Your task to perform on an android device: When is my next appointment? Image 0: 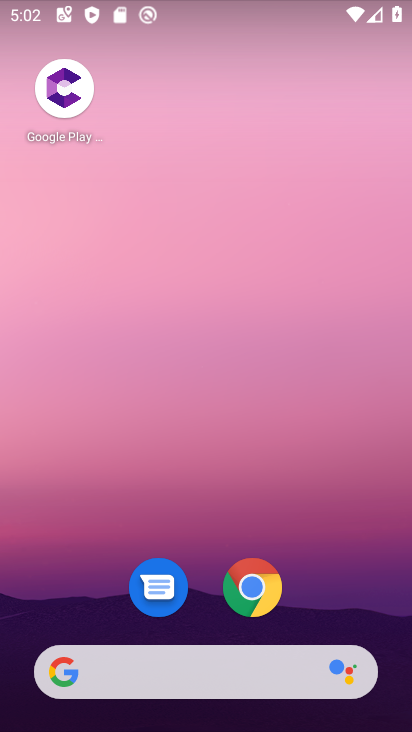
Step 0: drag from (336, 555) to (287, 193)
Your task to perform on an android device: When is my next appointment? Image 1: 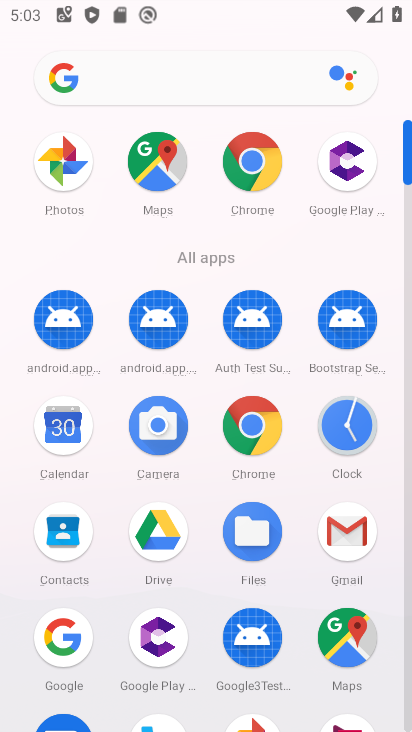
Step 1: click (66, 429)
Your task to perform on an android device: When is my next appointment? Image 2: 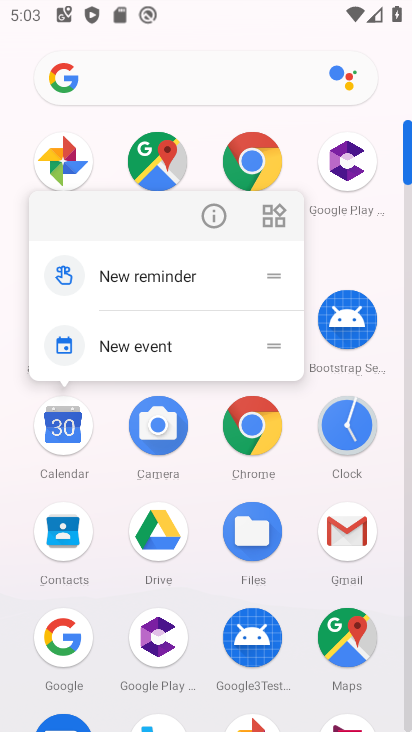
Step 2: click (66, 429)
Your task to perform on an android device: When is my next appointment? Image 3: 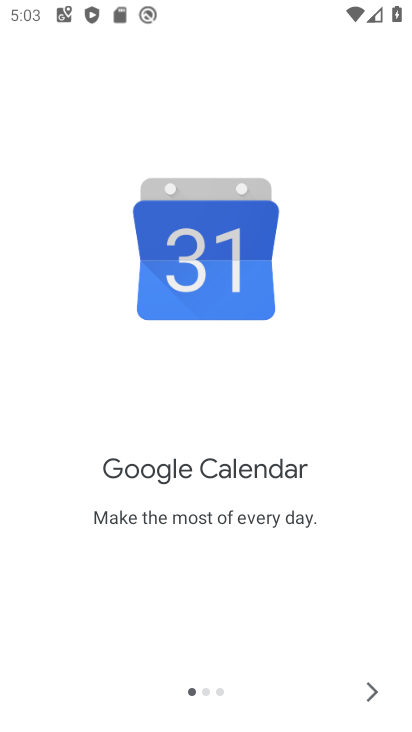
Step 3: click (375, 692)
Your task to perform on an android device: When is my next appointment? Image 4: 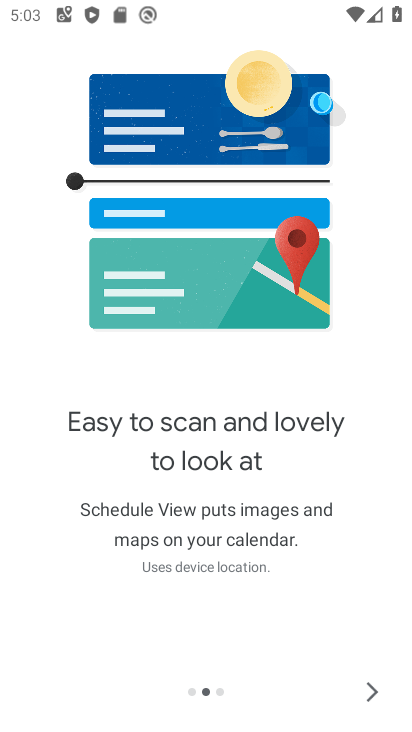
Step 4: click (375, 692)
Your task to perform on an android device: When is my next appointment? Image 5: 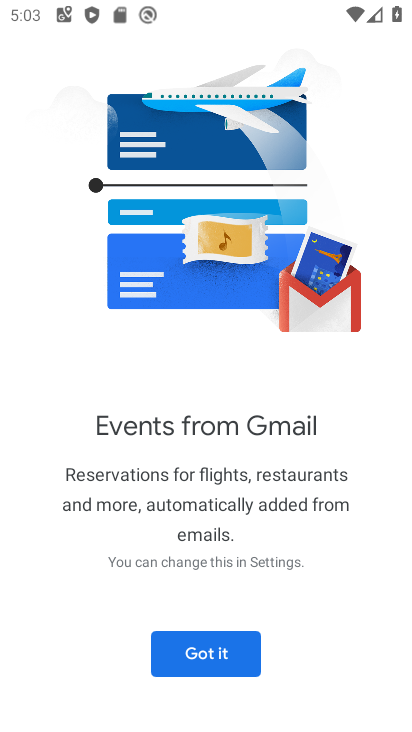
Step 5: click (211, 653)
Your task to perform on an android device: When is my next appointment? Image 6: 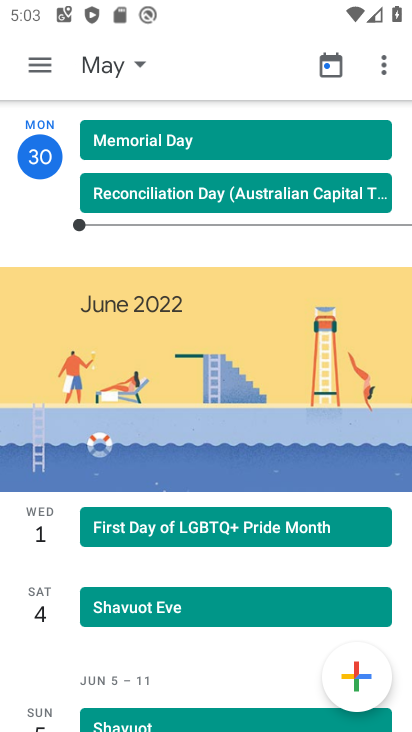
Step 6: click (140, 65)
Your task to perform on an android device: When is my next appointment? Image 7: 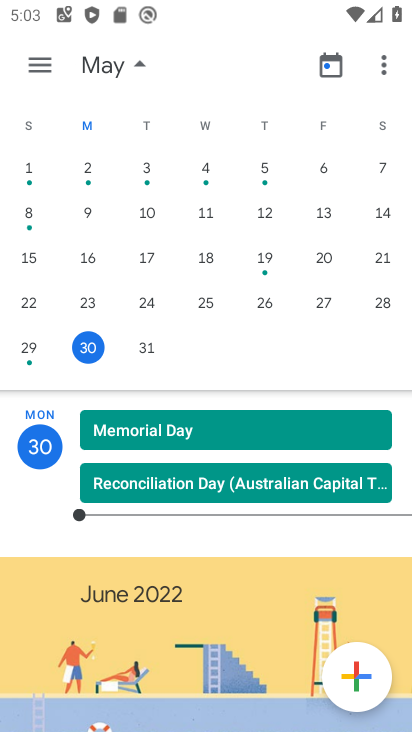
Step 7: click (150, 356)
Your task to perform on an android device: When is my next appointment? Image 8: 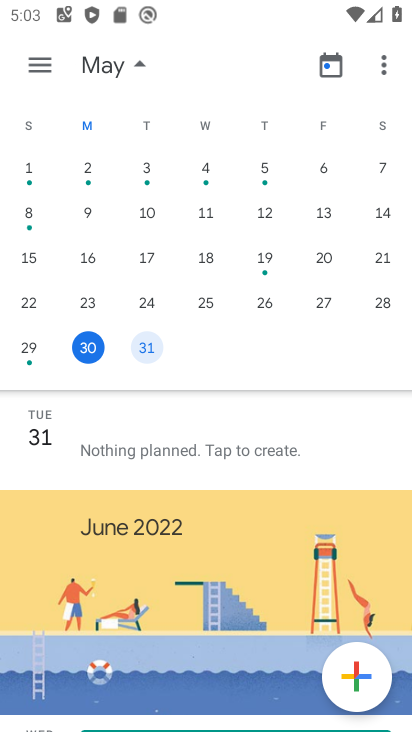
Step 8: click (44, 74)
Your task to perform on an android device: When is my next appointment? Image 9: 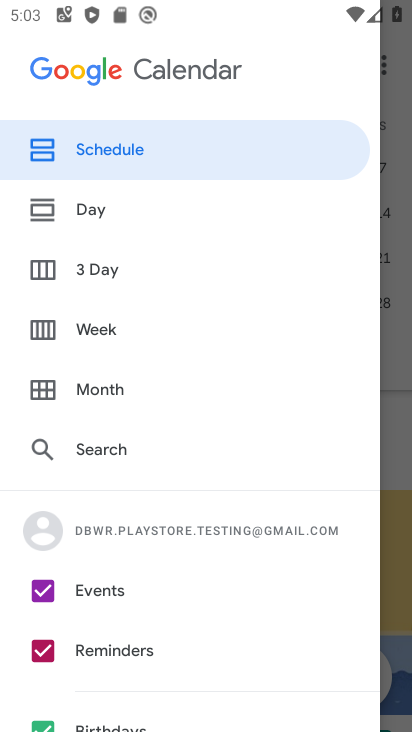
Step 9: click (174, 164)
Your task to perform on an android device: When is my next appointment? Image 10: 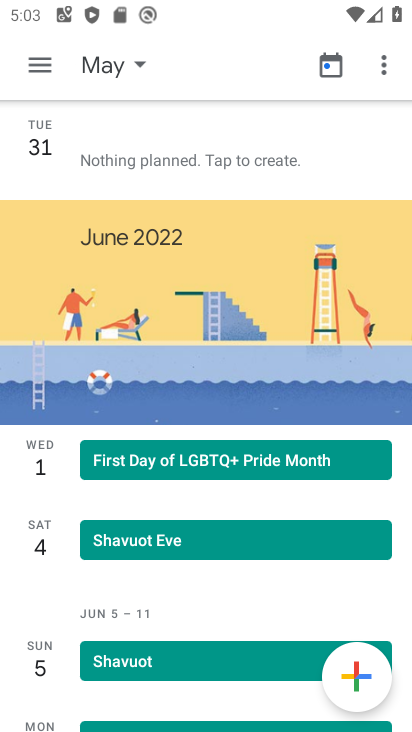
Step 10: task complete